Your task to perform on an android device: set the stopwatch Image 0: 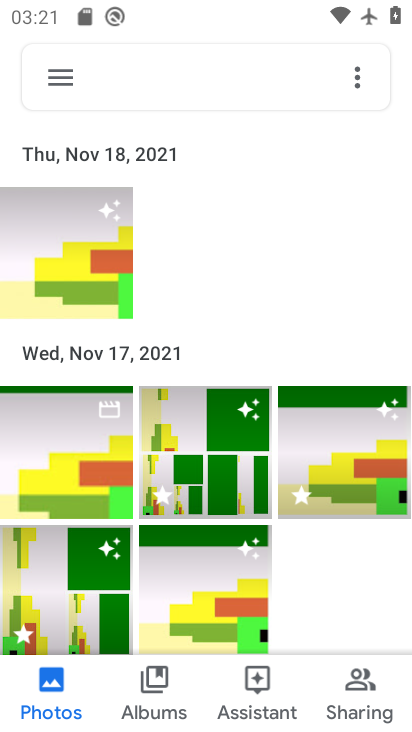
Step 0: press home button
Your task to perform on an android device: set the stopwatch Image 1: 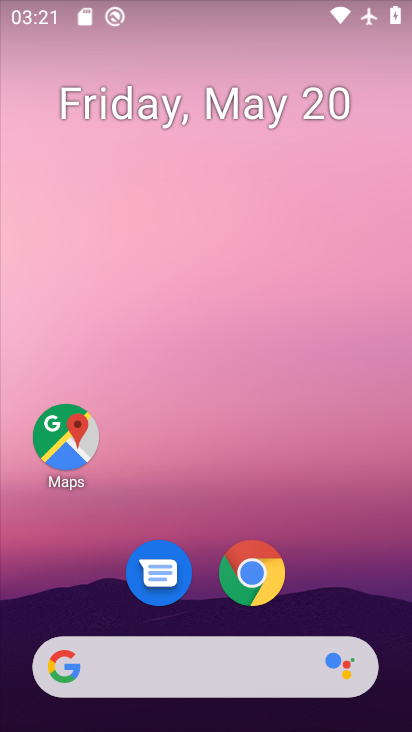
Step 1: drag from (200, 596) to (204, 220)
Your task to perform on an android device: set the stopwatch Image 2: 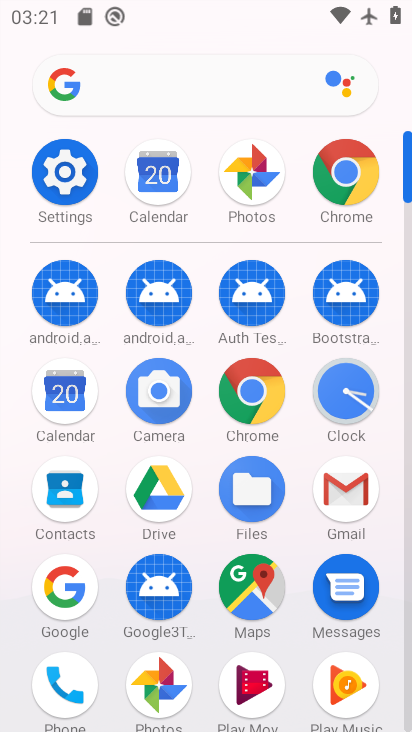
Step 2: click (317, 385)
Your task to perform on an android device: set the stopwatch Image 3: 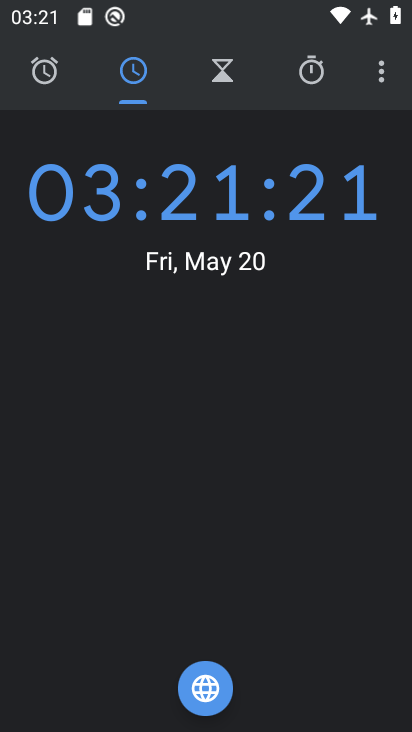
Step 3: click (311, 70)
Your task to perform on an android device: set the stopwatch Image 4: 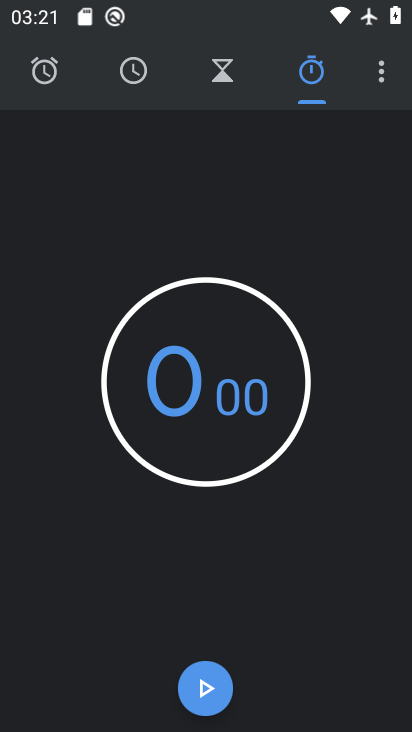
Step 4: click (210, 673)
Your task to perform on an android device: set the stopwatch Image 5: 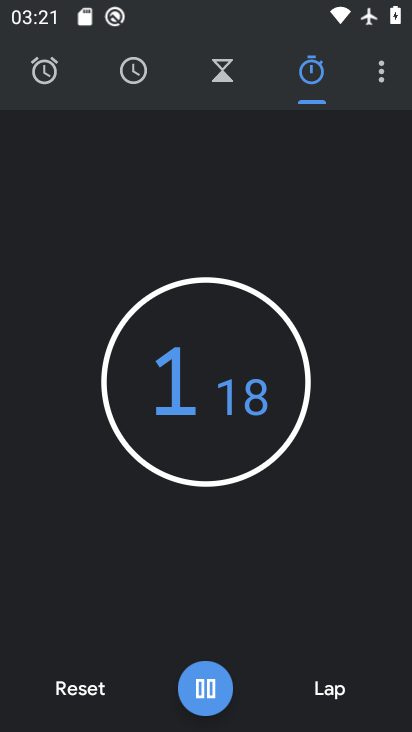
Step 5: task complete